Your task to perform on an android device: change notification settings in the gmail app Image 0: 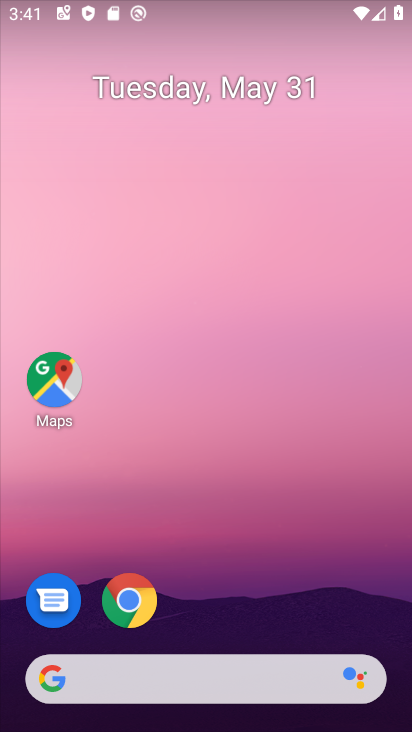
Step 0: click (126, 594)
Your task to perform on an android device: change notification settings in the gmail app Image 1: 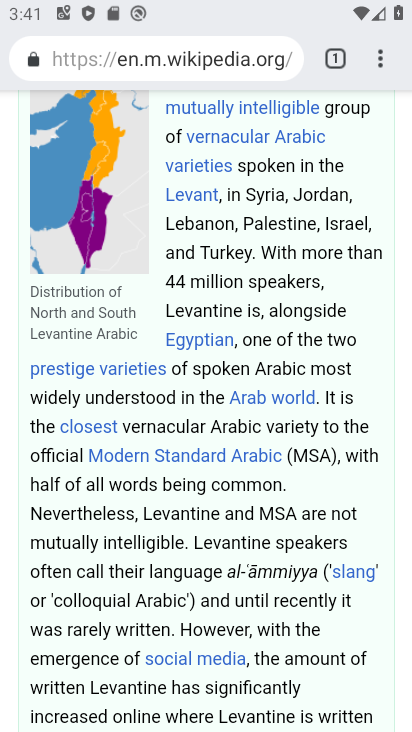
Step 1: drag from (233, 627) to (275, 307)
Your task to perform on an android device: change notification settings in the gmail app Image 2: 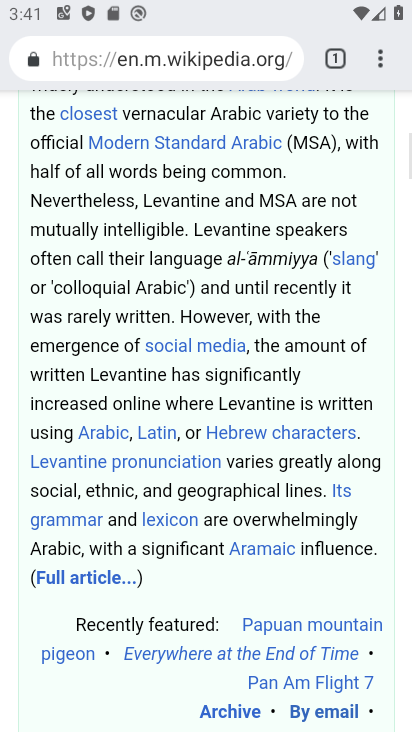
Step 2: press home button
Your task to perform on an android device: change notification settings in the gmail app Image 3: 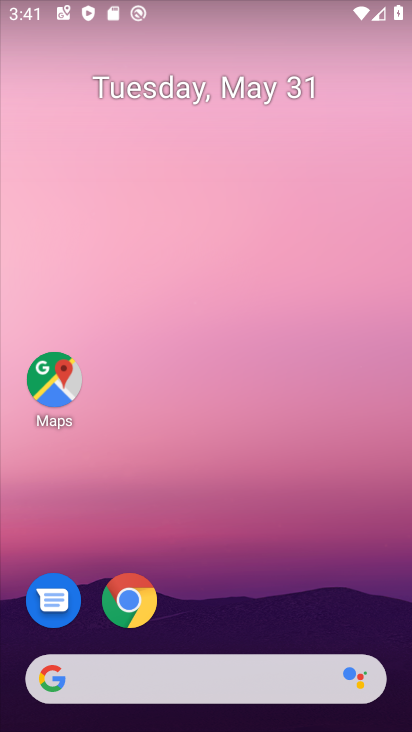
Step 3: drag from (220, 636) to (270, 169)
Your task to perform on an android device: change notification settings in the gmail app Image 4: 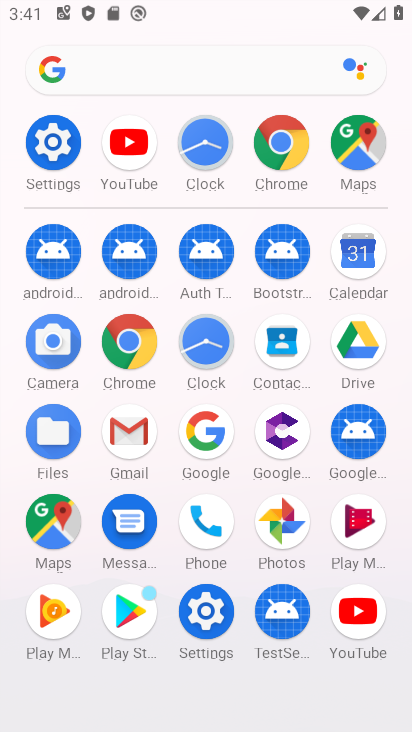
Step 4: click (127, 424)
Your task to perform on an android device: change notification settings in the gmail app Image 5: 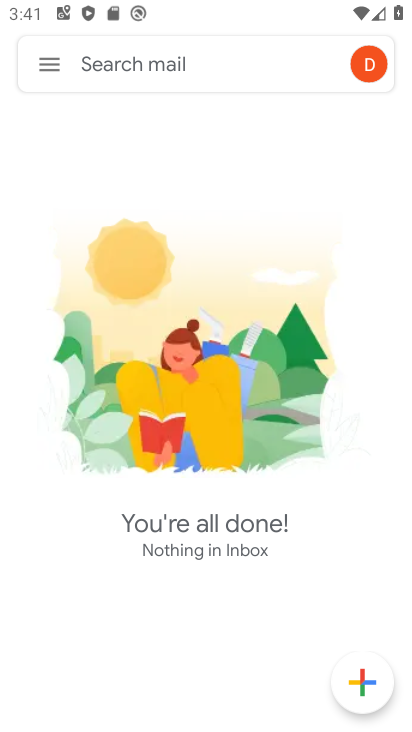
Step 5: click (42, 61)
Your task to perform on an android device: change notification settings in the gmail app Image 6: 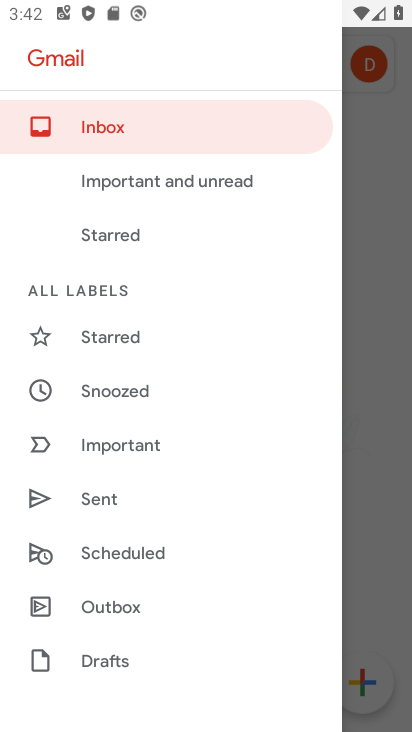
Step 6: drag from (152, 639) to (210, 118)
Your task to perform on an android device: change notification settings in the gmail app Image 7: 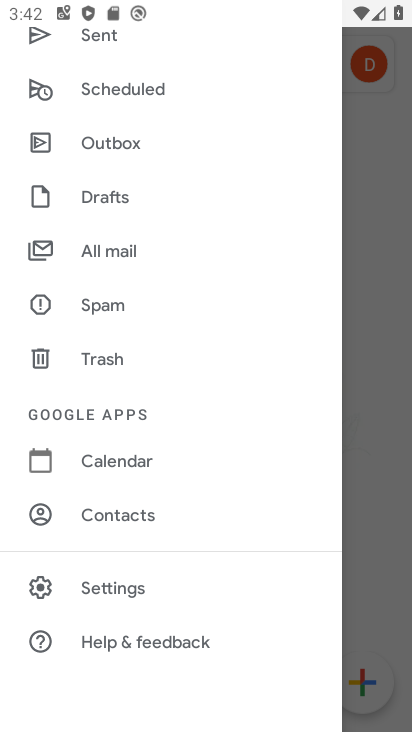
Step 7: click (150, 590)
Your task to perform on an android device: change notification settings in the gmail app Image 8: 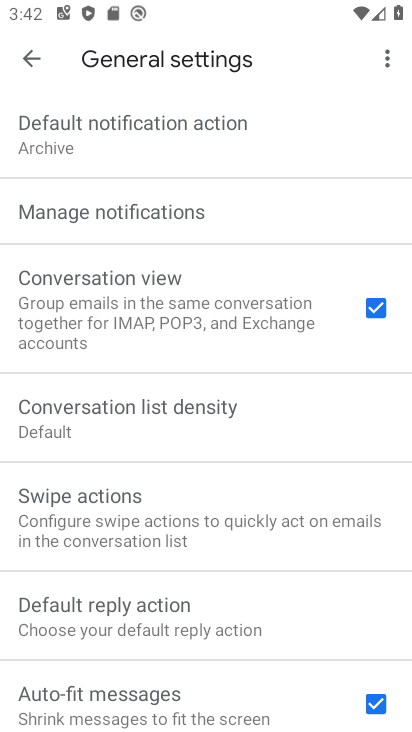
Step 8: click (228, 208)
Your task to perform on an android device: change notification settings in the gmail app Image 9: 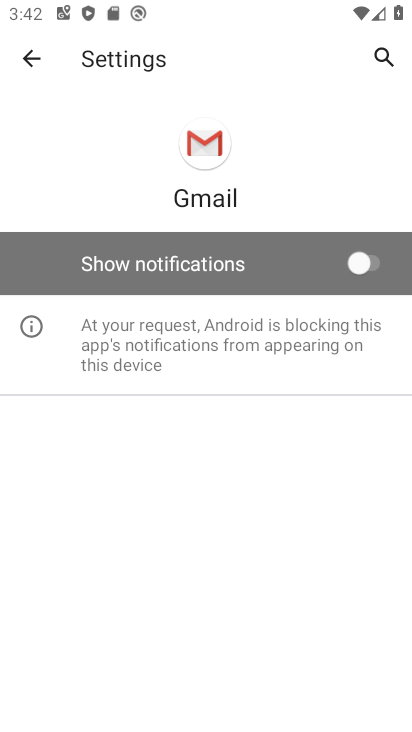
Step 9: click (368, 263)
Your task to perform on an android device: change notification settings in the gmail app Image 10: 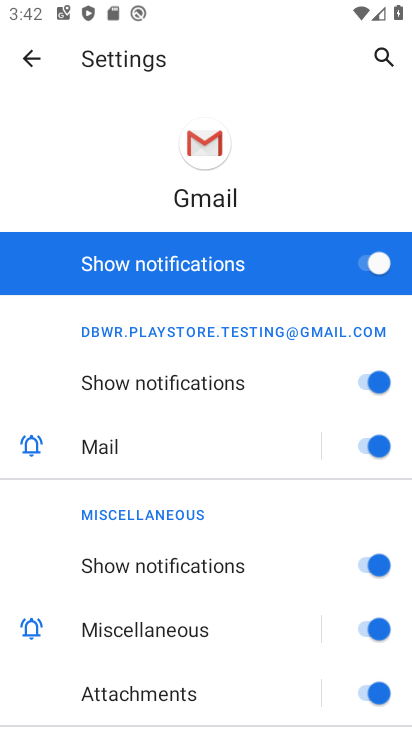
Step 10: task complete